Your task to perform on an android device: search for starred emails in the gmail app Image 0: 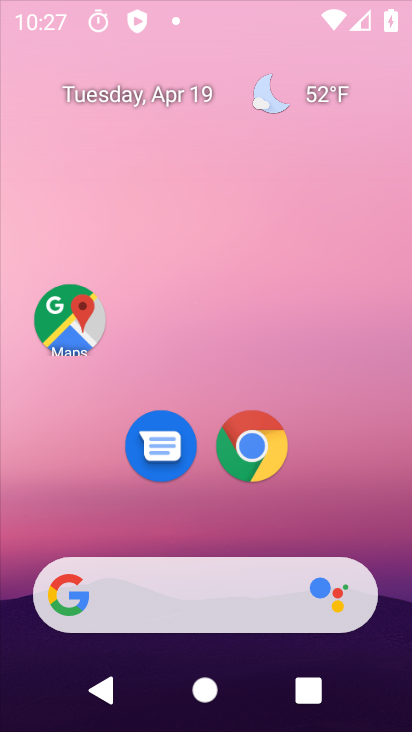
Step 0: drag from (376, 422) to (393, 119)
Your task to perform on an android device: search for starred emails in the gmail app Image 1: 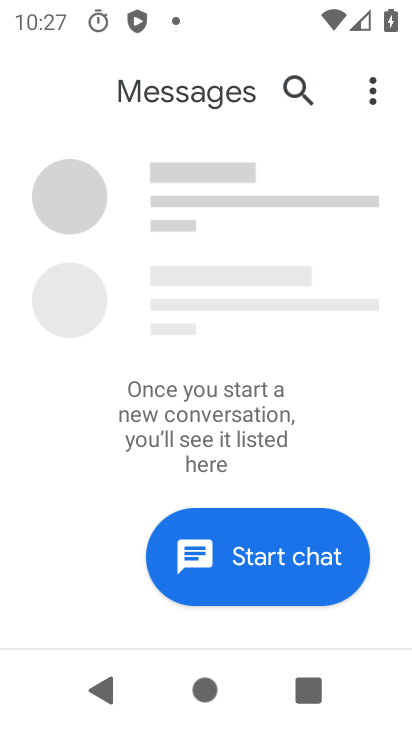
Step 1: press home button
Your task to perform on an android device: search for starred emails in the gmail app Image 2: 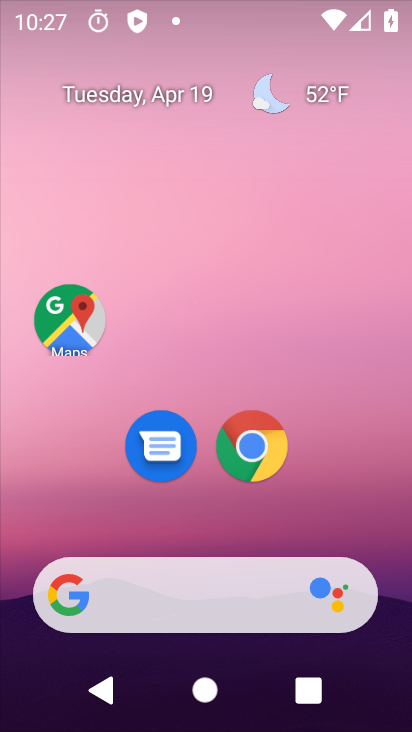
Step 2: drag from (368, 419) to (371, 193)
Your task to perform on an android device: search for starred emails in the gmail app Image 3: 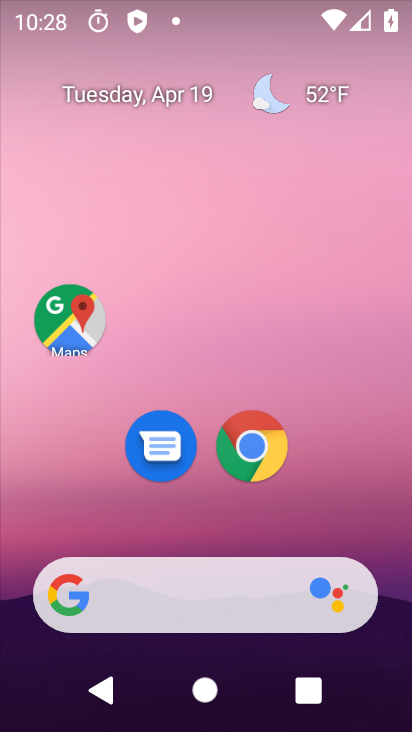
Step 3: drag from (383, 265) to (380, 215)
Your task to perform on an android device: search for starred emails in the gmail app Image 4: 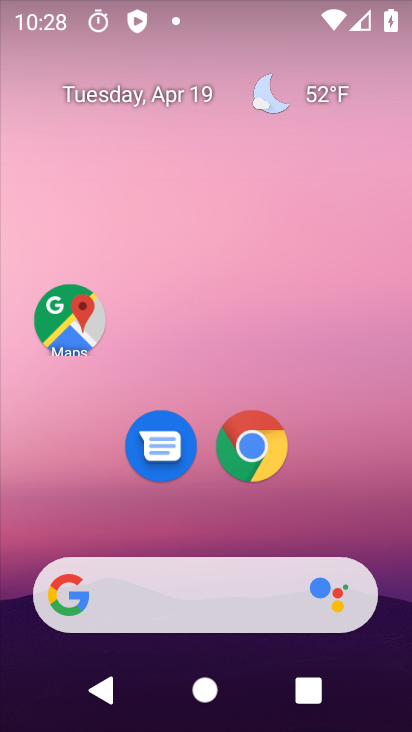
Step 4: click (364, 142)
Your task to perform on an android device: search for starred emails in the gmail app Image 5: 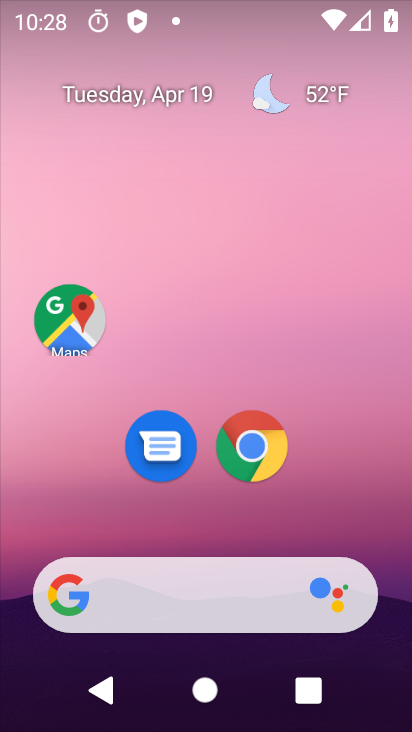
Step 5: drag from (392, 446) to (383, 151)
Your task to perform on an android device: search for starred emails in the gmail app Image 6: 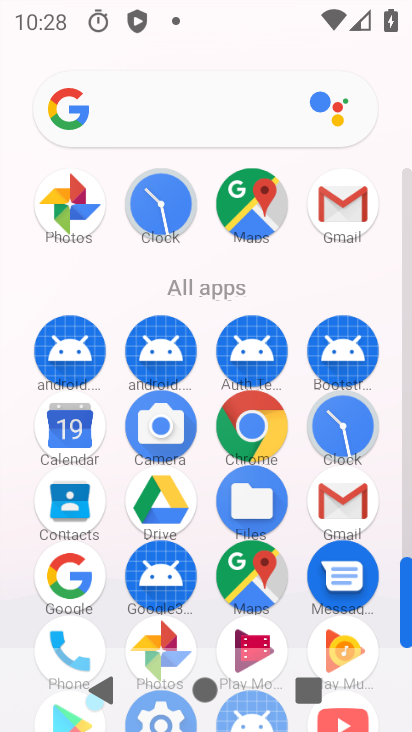
Step 6: click (349, 222)
Your task to perform on an android device: search for starred emails in the gmail app Image 7: 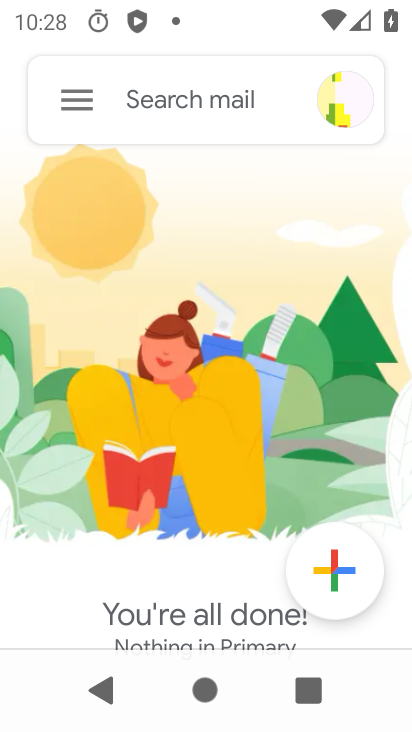
Step 7: click (76, 102)
Your task to perform on an android device: search for starred emails in the gmail app Image 8: 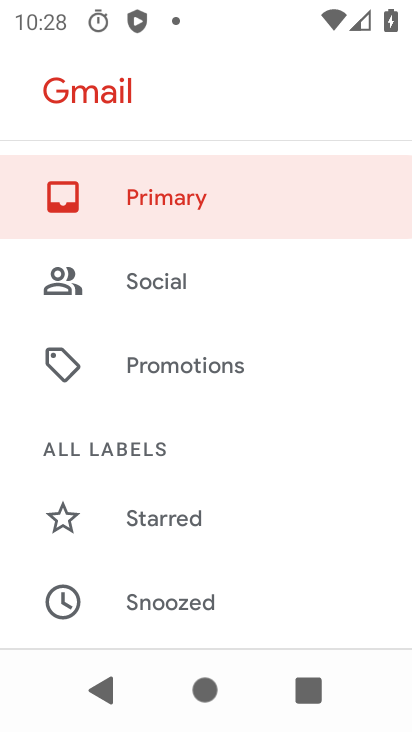
Step 8: click (178, 515)
Your task to perform on an android device: search for starred emails in the gmail app Image 9: 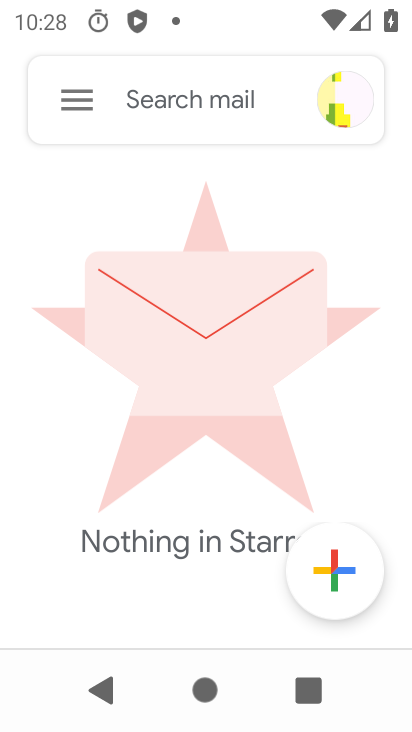
Step 9: task complete